Your task to perform on an android device: move an email to a new category in the gmail app Image 0: 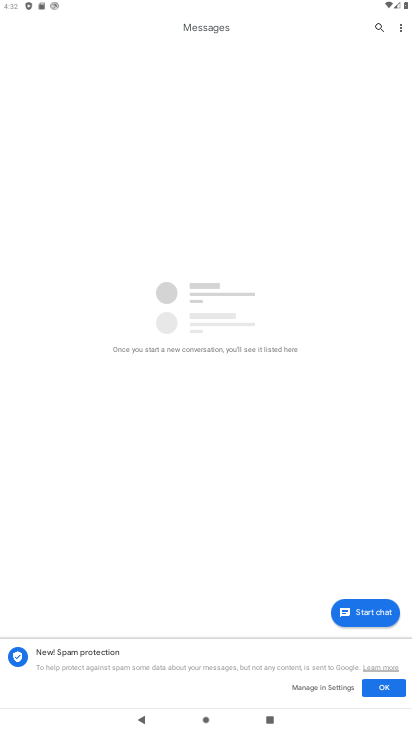
Step 0: press home button
Your task to perform on an android device: move an email to a new category in the gmail app Image 1: 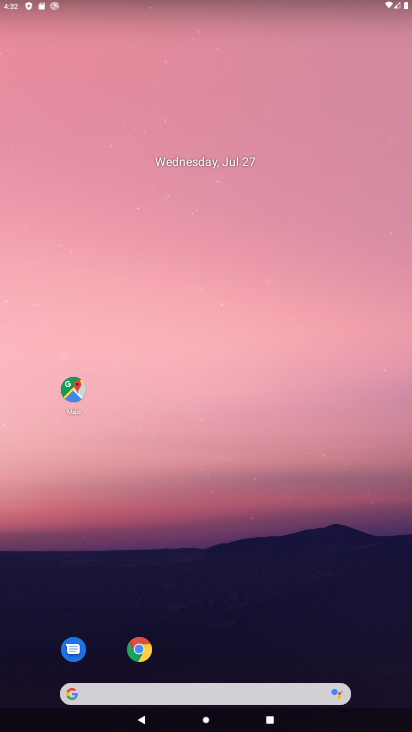
Step 1: drag from (202, 691) to (236, 25)
Your task to perform on an android device: move an email to a new category in the gmail app Image 2: 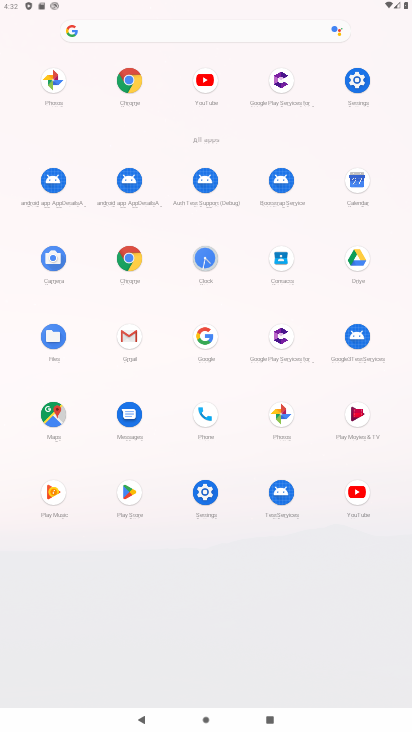
Step 2: click (128, 333)
Your task to perform on an android device: move an email to a new category in the gmail app Image 3: 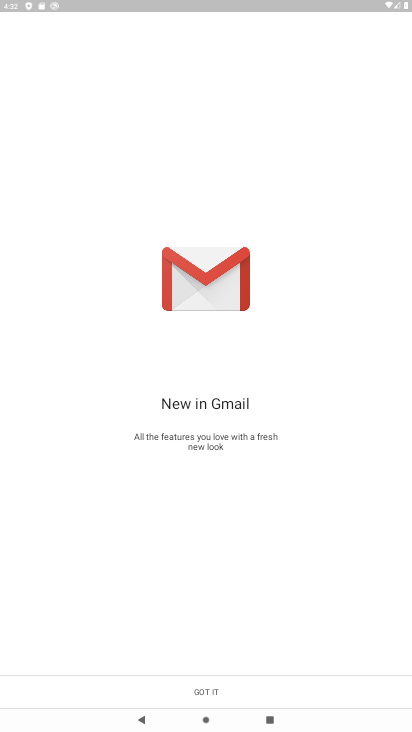
Step 3: click (207, 693)
Your task to perform on an android device: move an email to a new category in the gmail app Image 4: 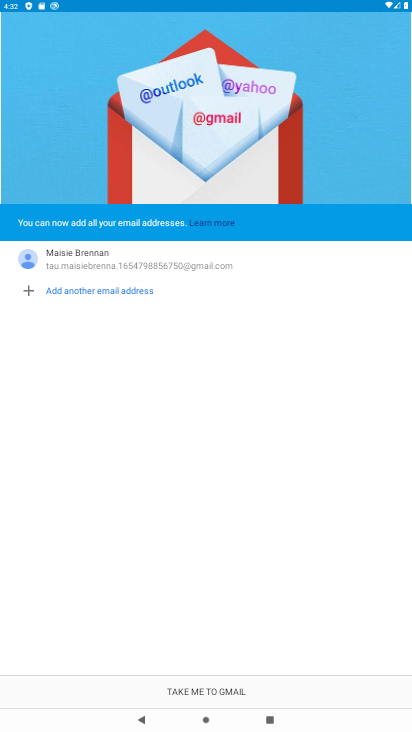
Step 4: click (207, 689)
Your task to perform on an android device: move an email to a new category in the gmail app Image 5: 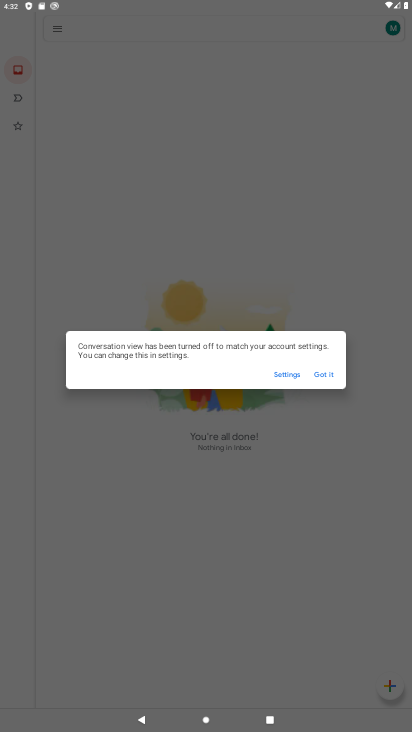
Step 5: click (324, 374)
Your task to perform on an android device: move an email to a new category in the gmail app Image 6: 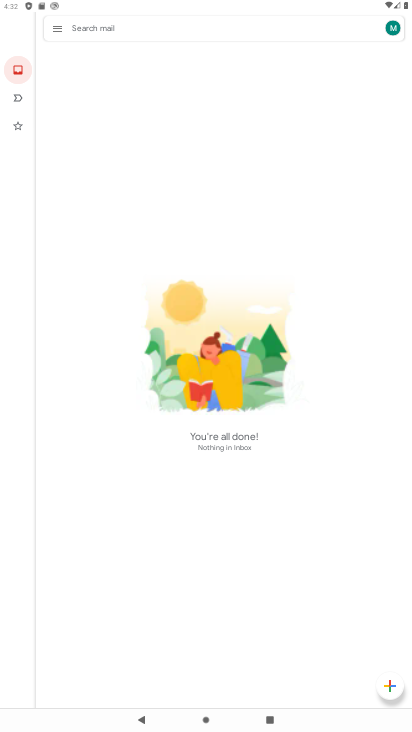
Step 6: click (56, 28)
Your task to perform on an android device: move an email to a new category in the gmail app Image 7: 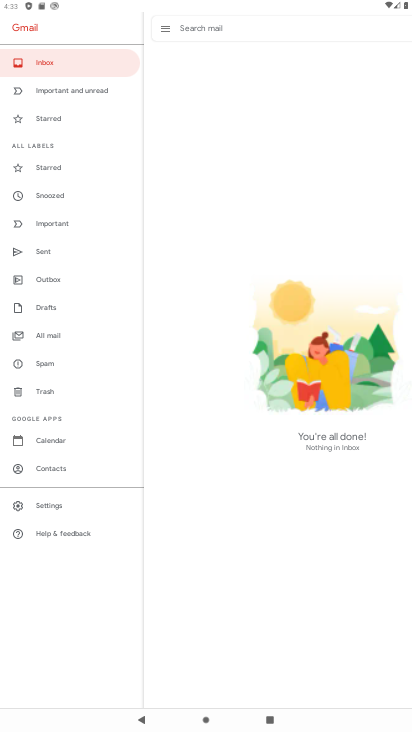
Step 7: click (48, 334)
Your task to perform on an android device: move an email to a new category in the gmail app Image 8: 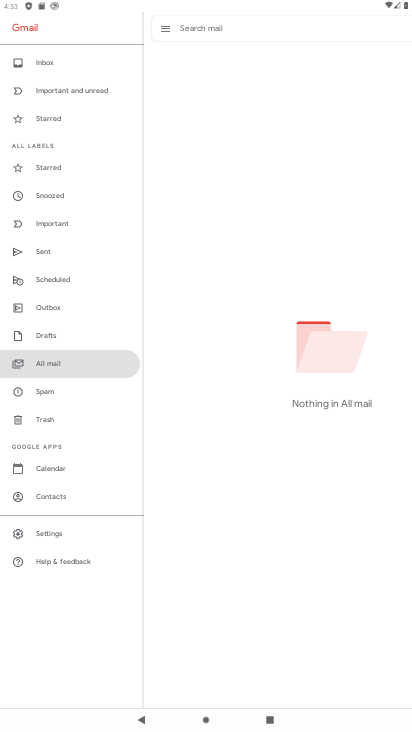
Step 8: click (43, 59)
Your task to perform on an android device: move an email to a new category in the gmail app Image 9: 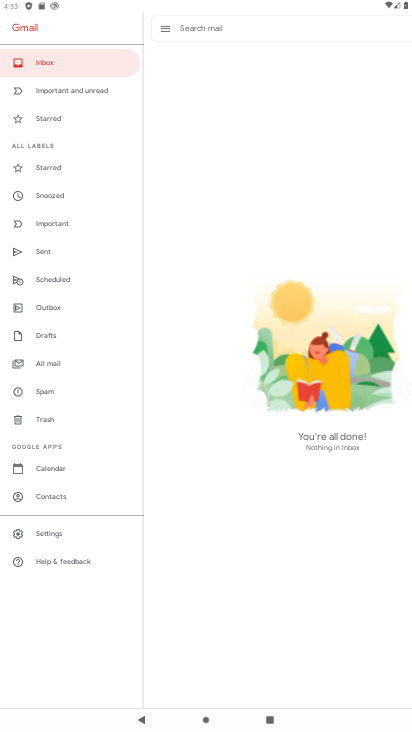
Step 9: click (68, 86)
Your task to perform on an android device: move an email to a new category in the gmail app Image 10: 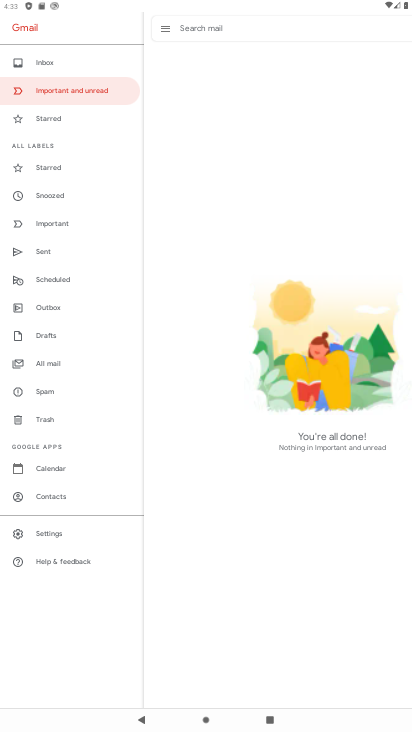
Step 10: click (47, 115)
Your task to perform on an android device: move an email to a new category in the gmail app Image 11: 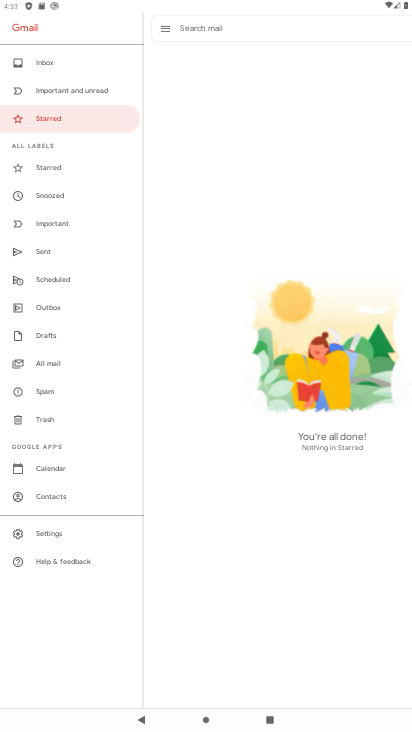
Step 11: click (52, 161)
Your task to perform on an android device: move an email to a new category in the gmail app Image 12: 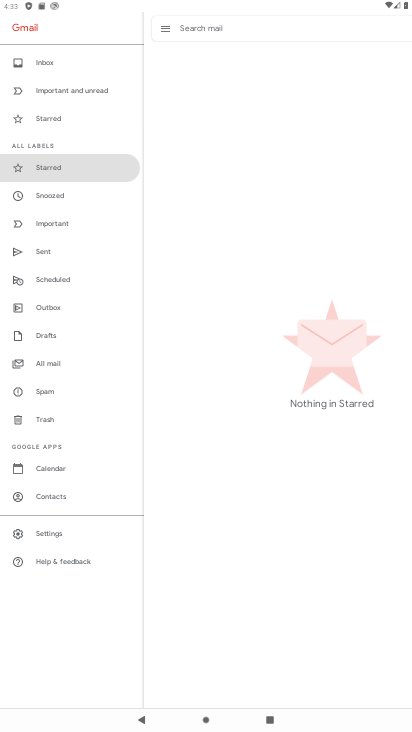
Step 12: click (52, 198)
Your task to perform on an android device: move an email to a new category in the gmail app Image 13: 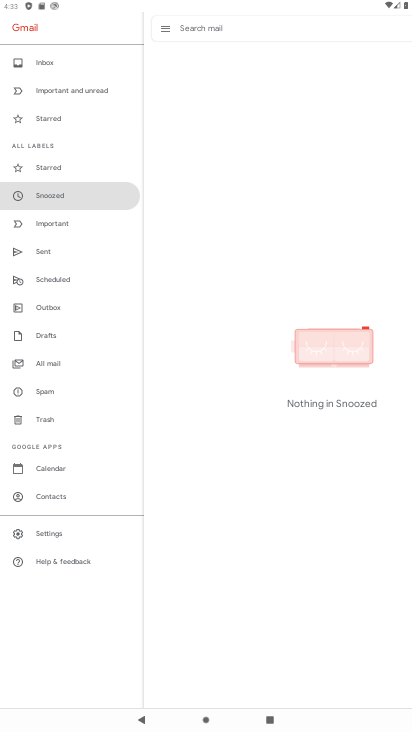
Step 13: click (45, 225)
Your task to perform on an android device: move an email to a new category in the gmail app Image 14: 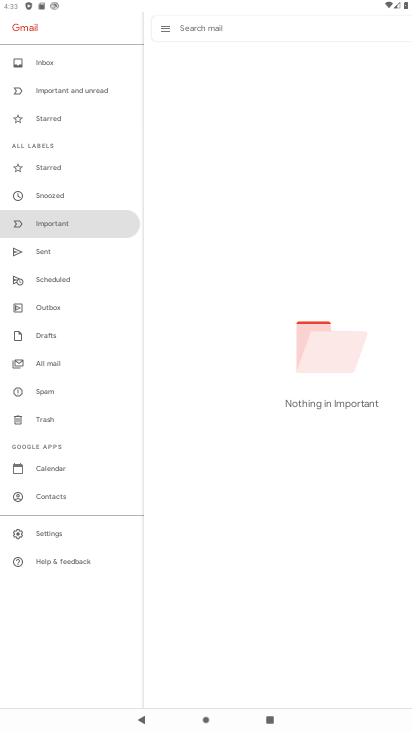
Step 14: click (47, 249)
Your task to perform on an android device: move an email to a new category in the gmail app Image 15: 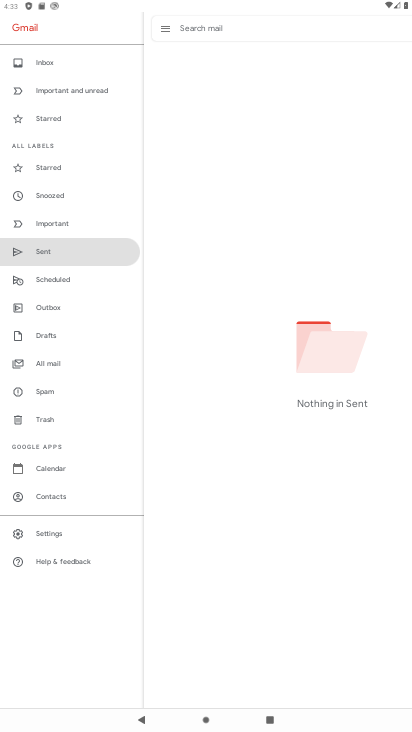
Step 15: click (52, 277)
Your task to perform on an android device: move an email to a new category in the gmail app Image 16: 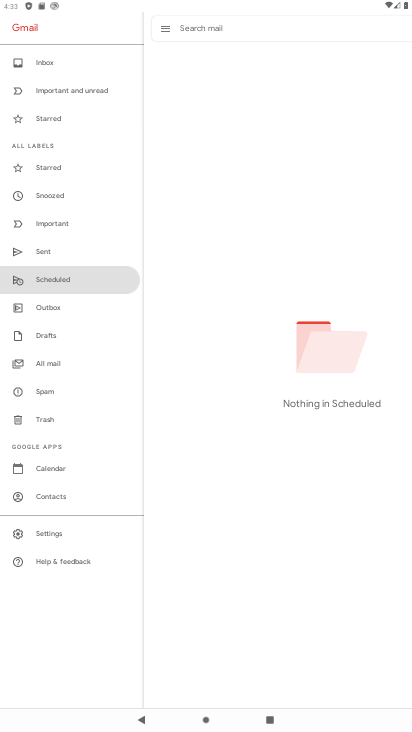
Step 16: click (51, 307)
Your task to perform on an android device: move an email to a new category in the gmail app Image 17: 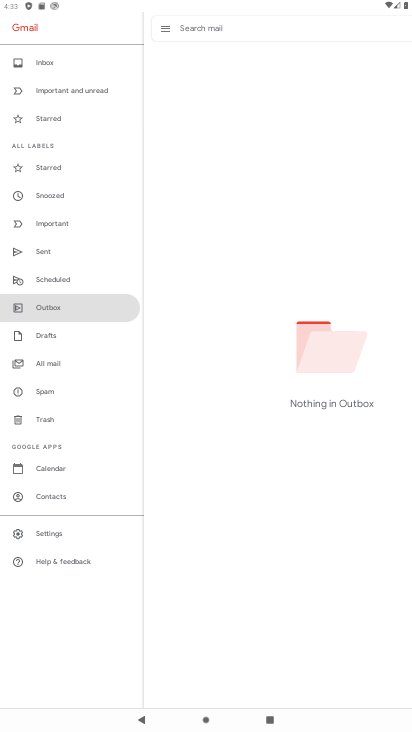
Step 17: click (52, 336)
Your task to perform on an android device: move an email to a new category in the gmail app Image 18: 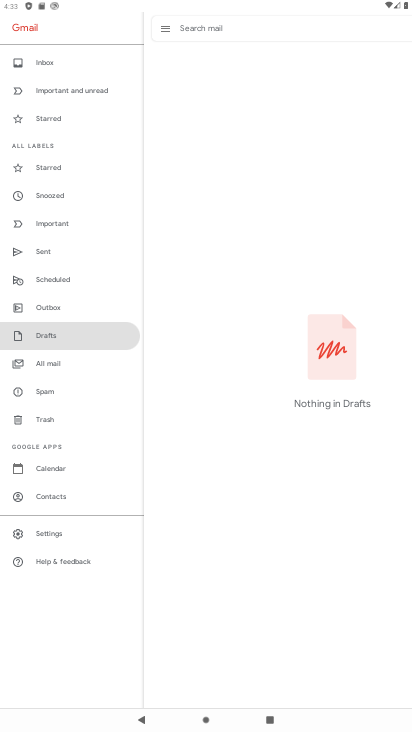
Step 18: click (46, 360)
Your task to perform on an android device: move an email to a new category in the gmail app Image 19: 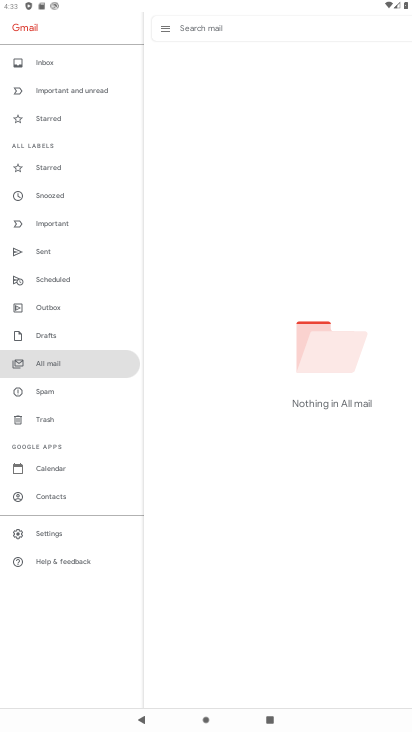
Step 19: click (42, 393)
Your task to perform on an android device: move an email to a new category in the gmail app Image 20: 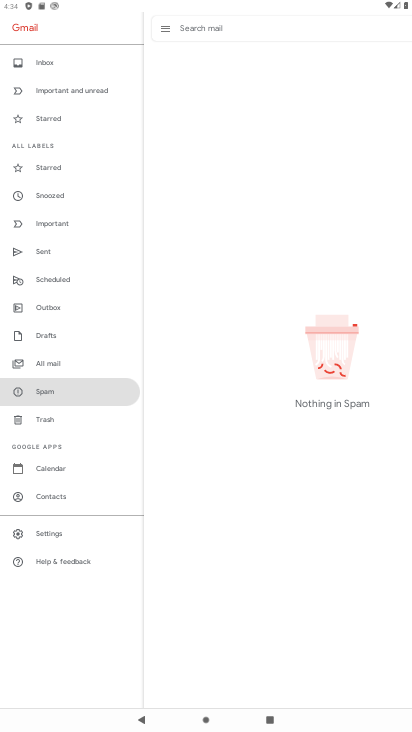
Step 20: click (44, 408)
Your task to perform on an android device: move an email to a new category in the gmail app Image 21: 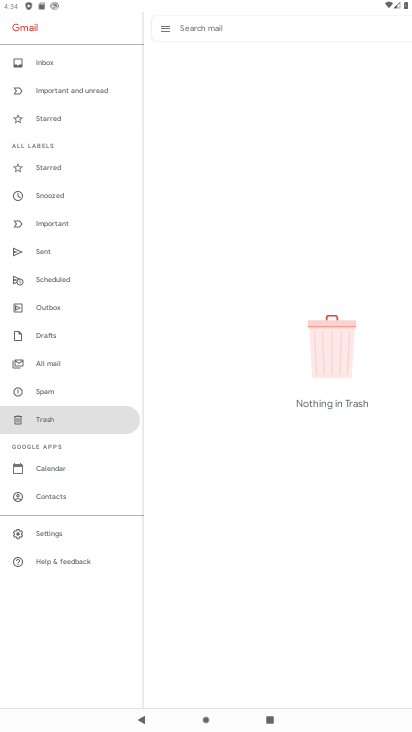
Step 21: task complete